Your task to perform on an android device: Open Google Chrome and click the shortcut for Amazon.com Image 0: 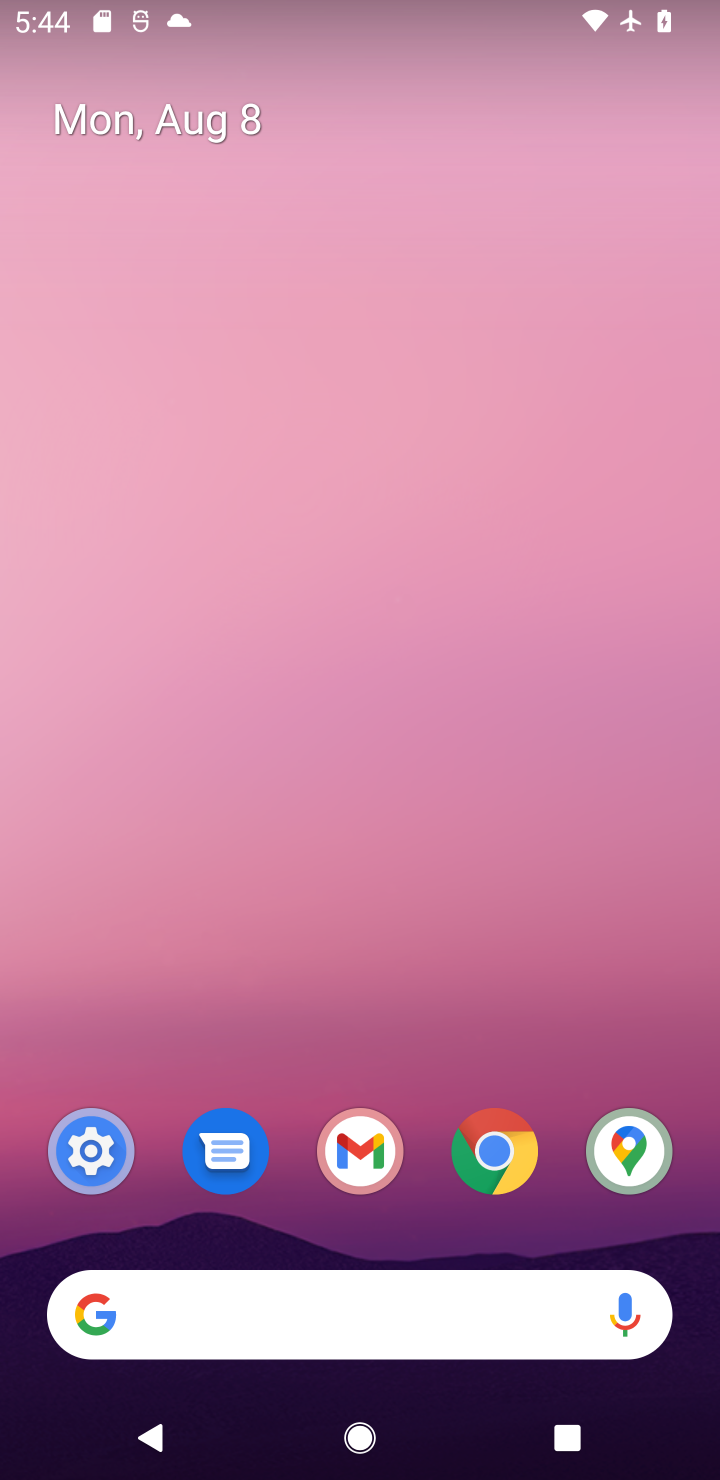
Step 0: click (470, 1159)
Your task to perform on an android device: Open Google Chrome and click the shortcut for Amazon.com Image 1: 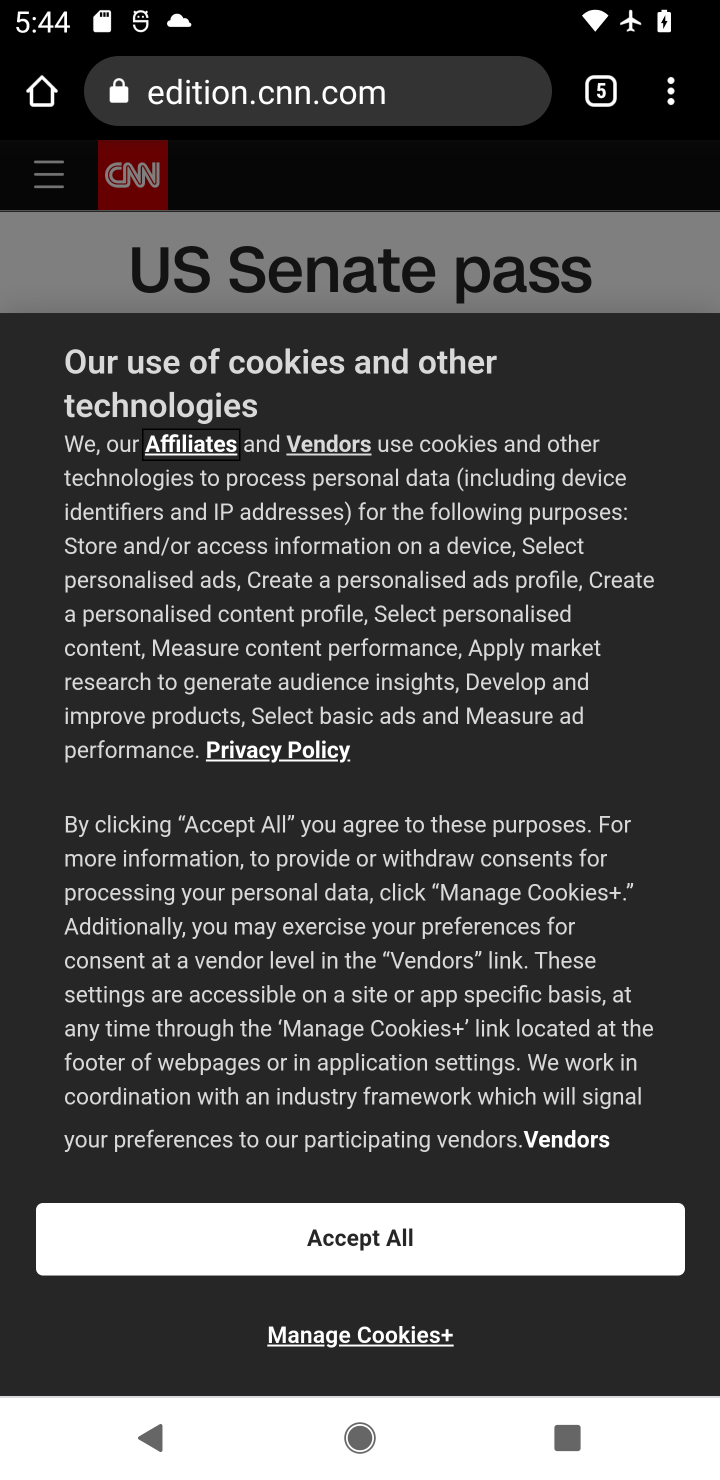
Step 1: click (612, 96)
Your task to perform on an android device: Open Google Chrome and click the shortcut for Amazon.com Image 2: 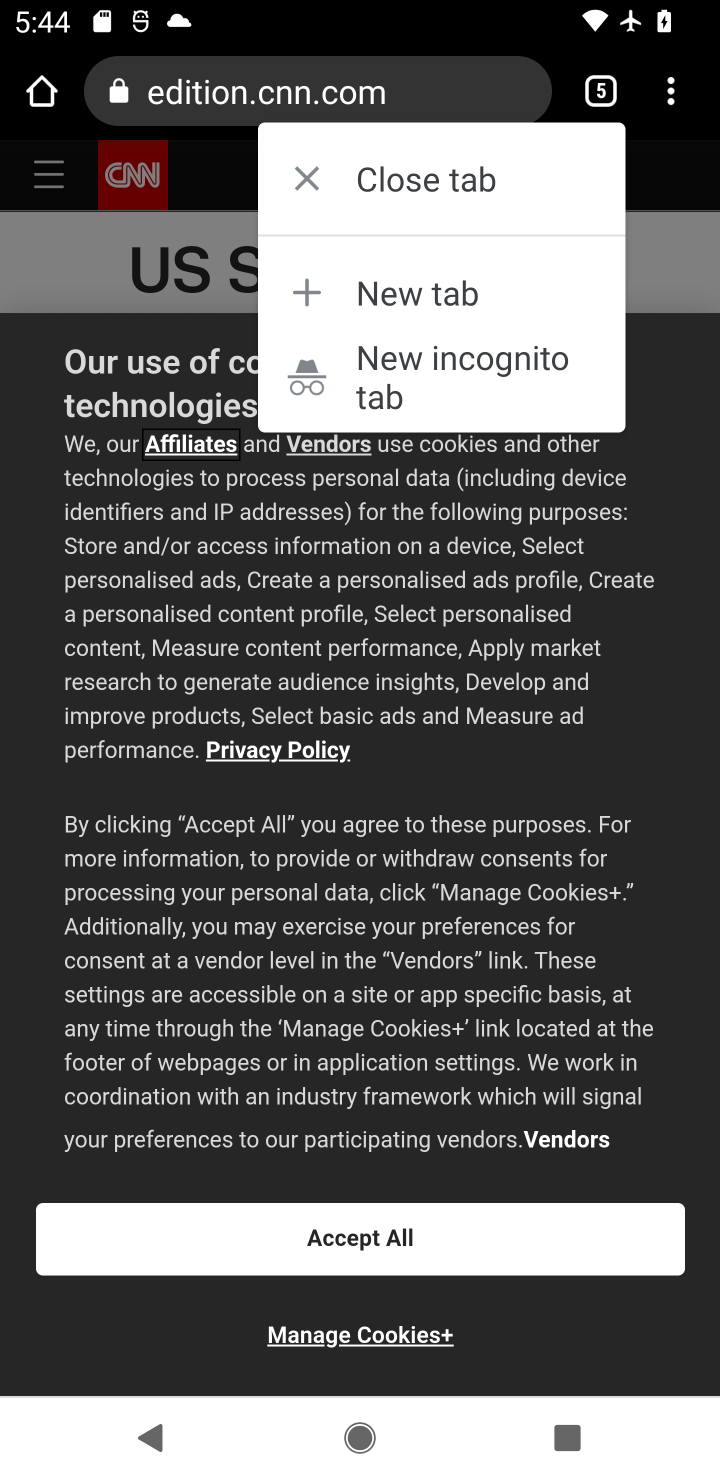
Step 2: click (614, 88)
Your task to perform on an android device: Open Google Chrome and click the shortcut for Amazon.com Image 3: 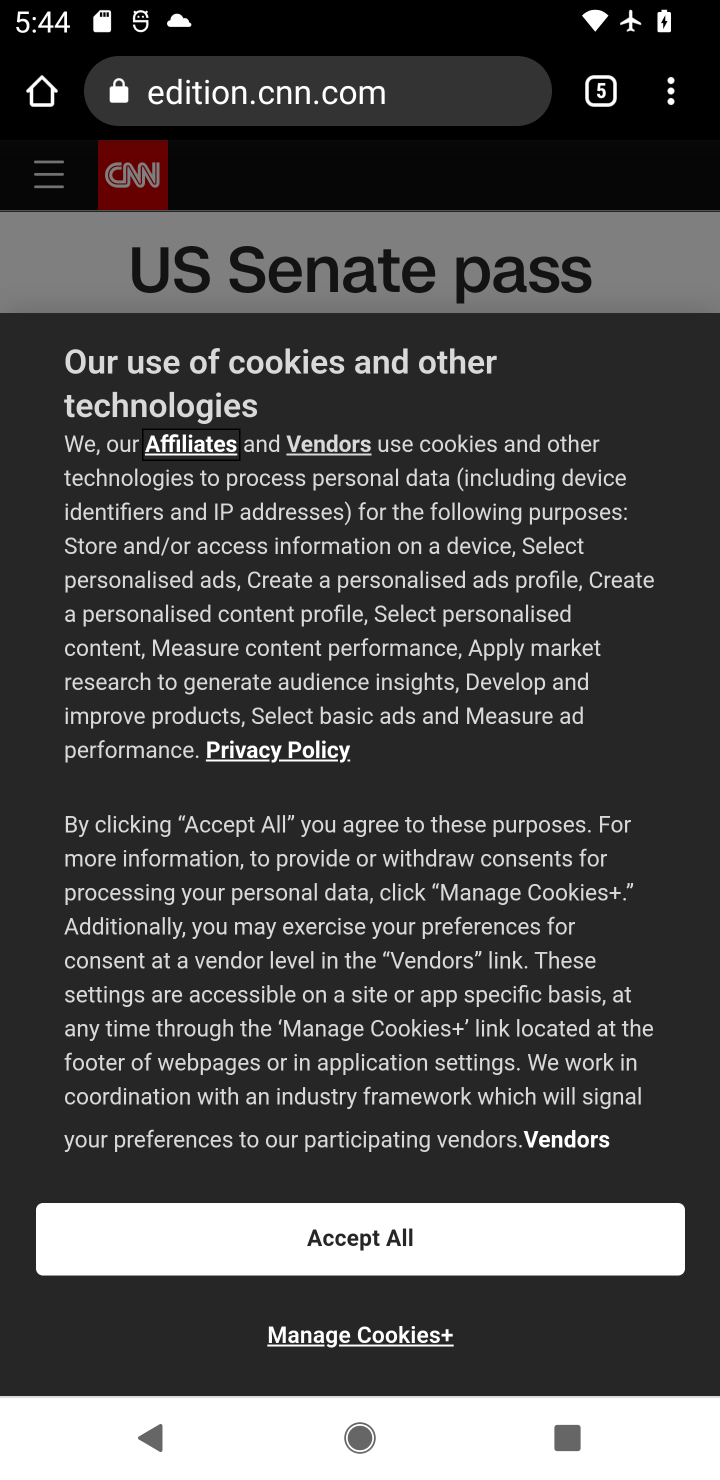
Step 3: click (593, 89)
Your task to perform on an android device: Open Google Chrome and click the shortcut for Amazon.com Image 4: 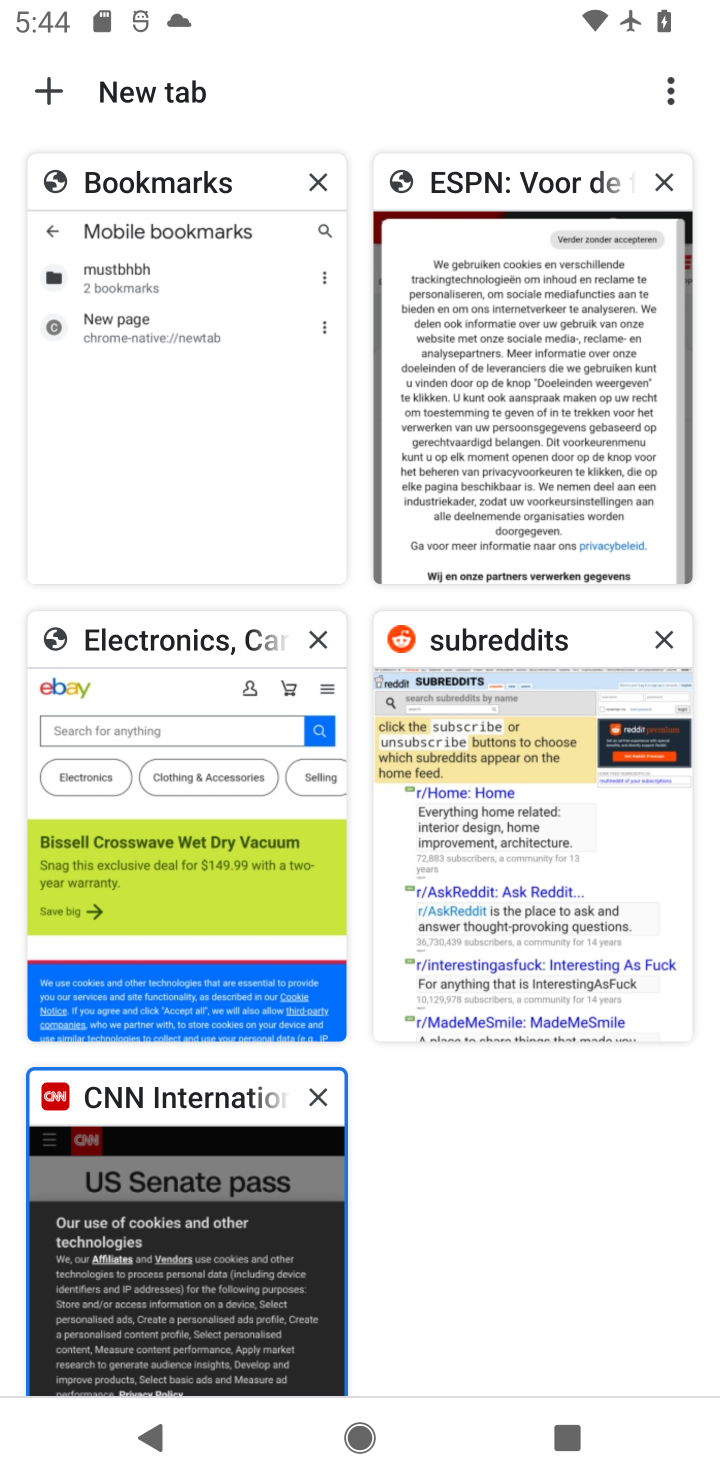
Step 4: click (54, 92)
Your task to perform on an android device: Open Google Chrome and click the shortcut for Amazon.com Image 5: 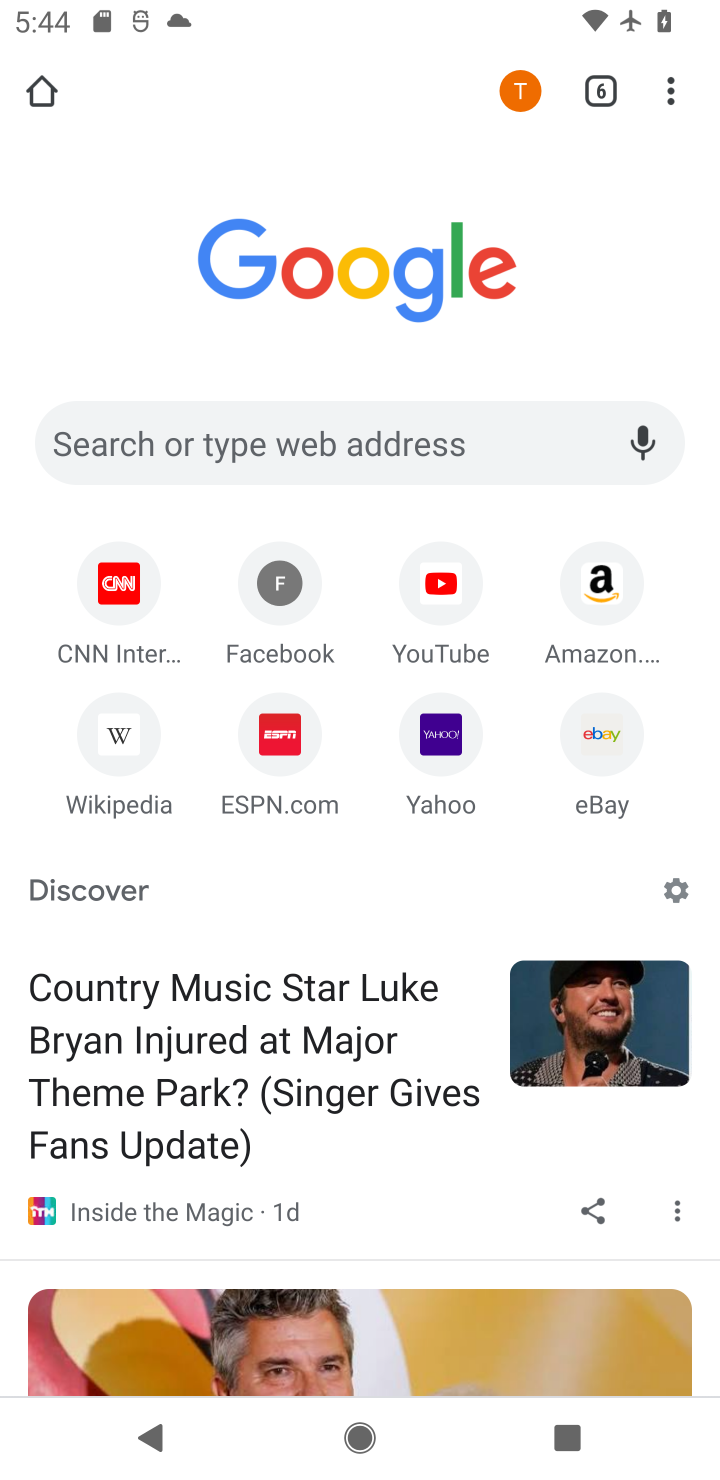
Step 5: click (609, 597)
Your task to perform on an android device: Open Google Chrome and click the shortcut for Amazon.com Image 6: 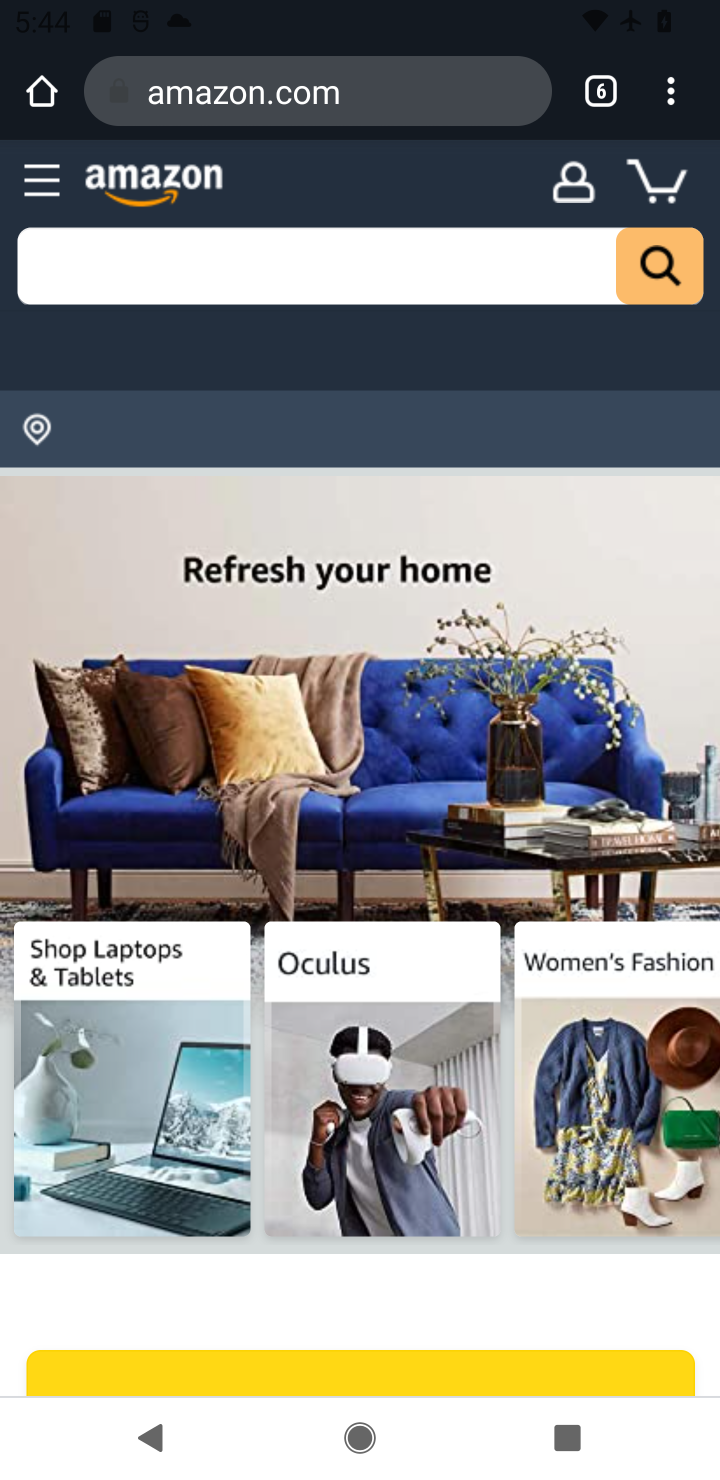
Step 6: task complete